Your task to perform on an android device: Go to privacy settings Image 0: 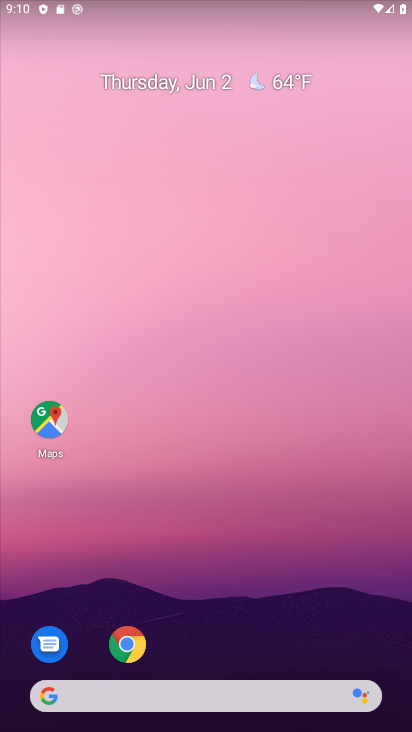
Step 0: press home button
Your task to perform on an android device: Go to privacy settings Image 1: 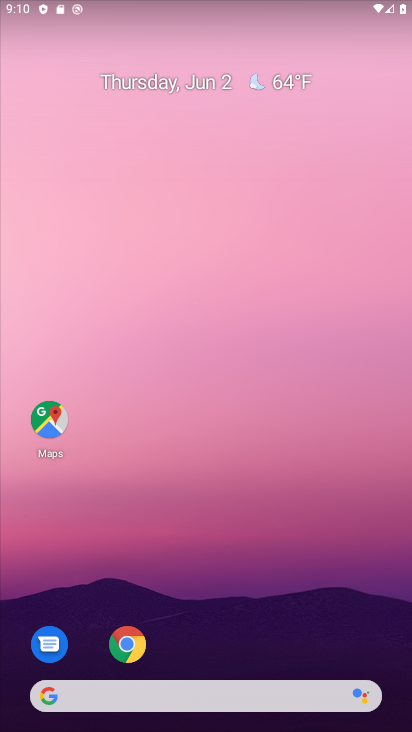
Step 1: drag from (337, 638) to (353, 40)
Your task to perform on an android device: Go to privacy settings Image 2: 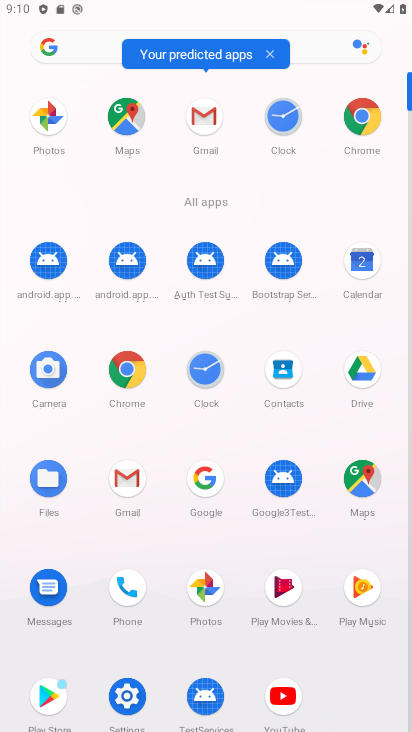
Step 2: click (146, 697)
Your task to perform on an android device: Go to privacy settings Image 3: 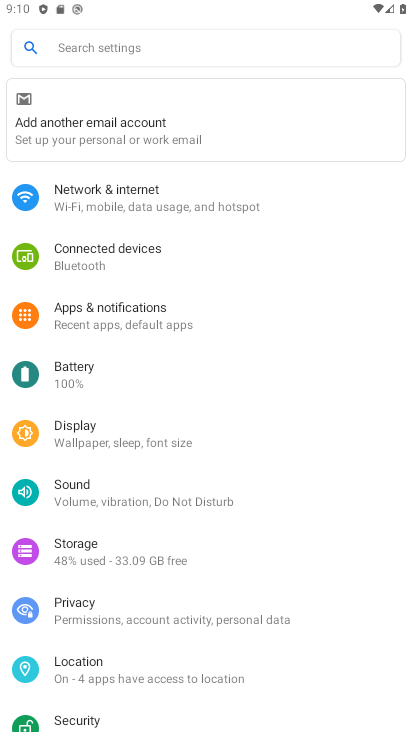
Step 3: click (53, 595)
Your task to perform on an android device: Go to privacy settings Image 4: 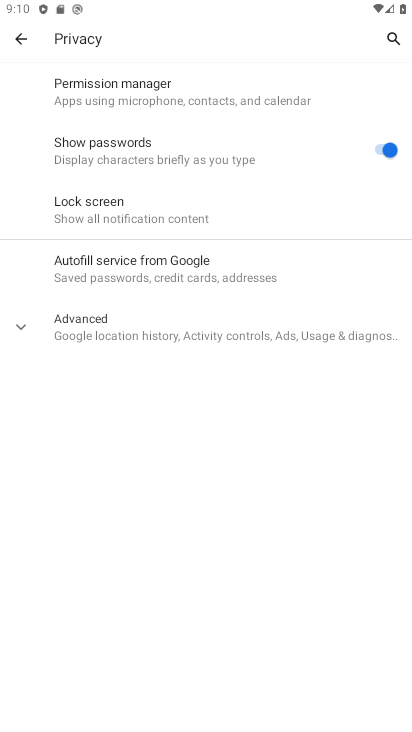
Step 4: task complete